Your task to perform on an android device: change notification settings in the gmail app Image 0: 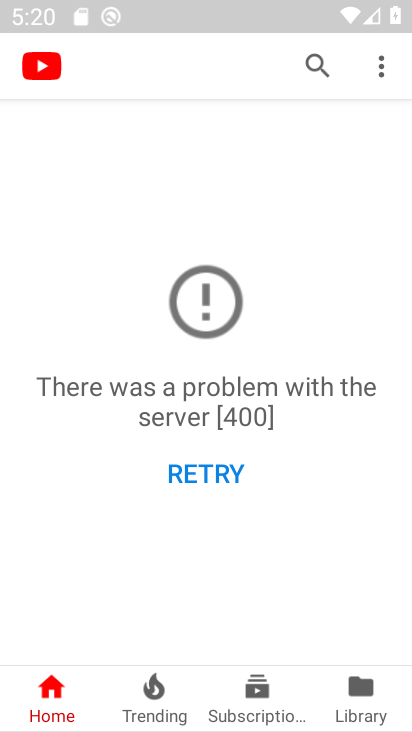
Step 0: press home button
Your task to perform on an android device: change notification settings in the gmail app Image 1: 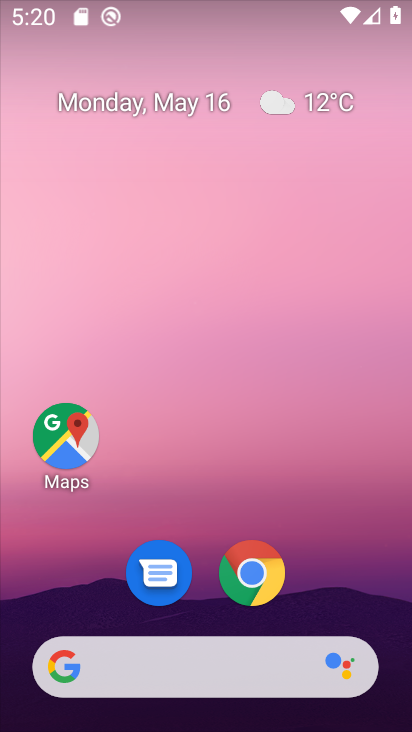
Step 1: drag from (208, 572) to (308, 28)
Your task to perform on an android device: change notification settings in the gmail app Image 2: 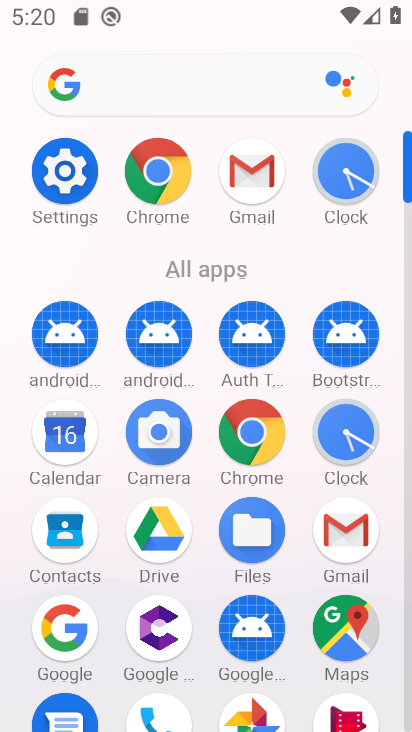
Step 2: click (249, 166)
Your task to perform on an android device: change notification settings in the gmail app Image 3: 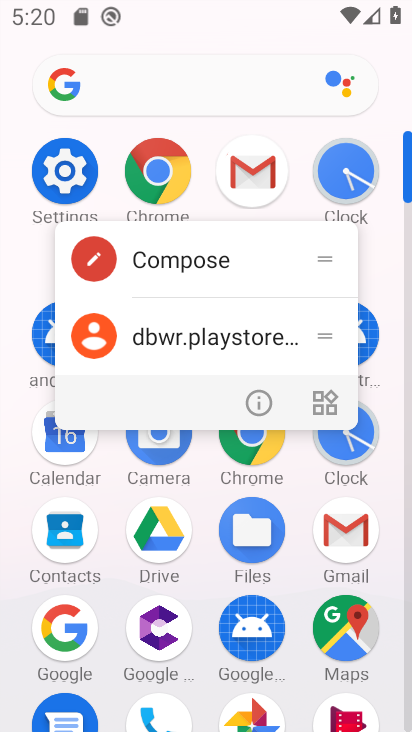
Step 3: click (255, 411)
Your task to perform on an android device: change notification settings in the gmail app Image 4: 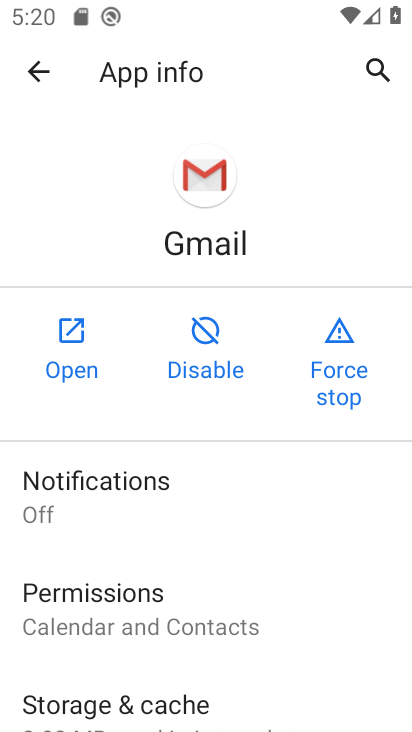
Step 4: click (132, 507)
Your task to perform on an android device: change notification settings in the gmail app Image 5: 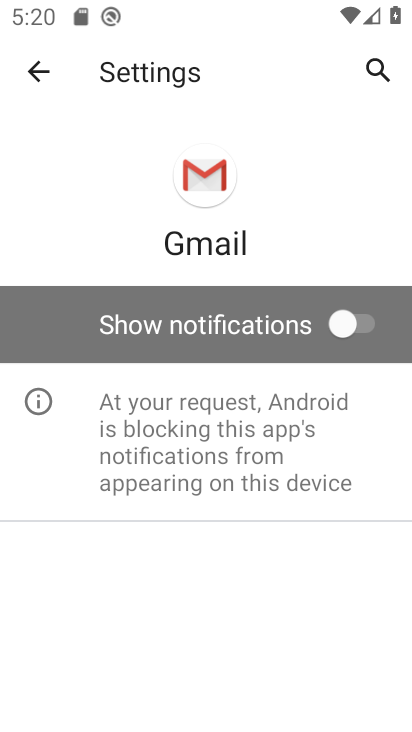
Step 5: click (342, 332)
Your task to perform on an android device: change notification settings in the gmail app Image 6: 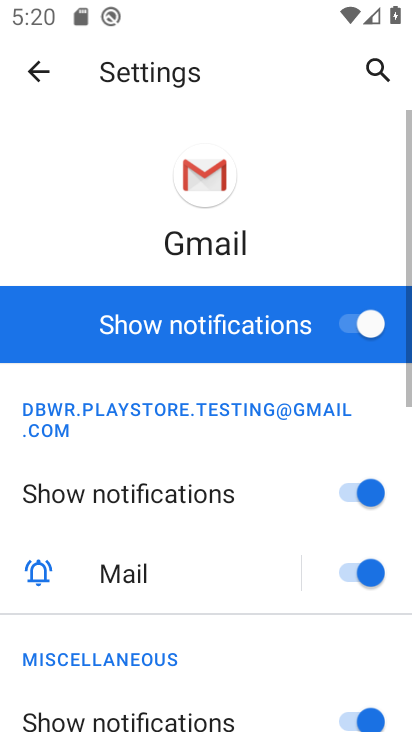
Step 6: drag from (220, 576) to (235, 293)
Your task to perform on an android device: change notification settings in the gmail app Image 7: 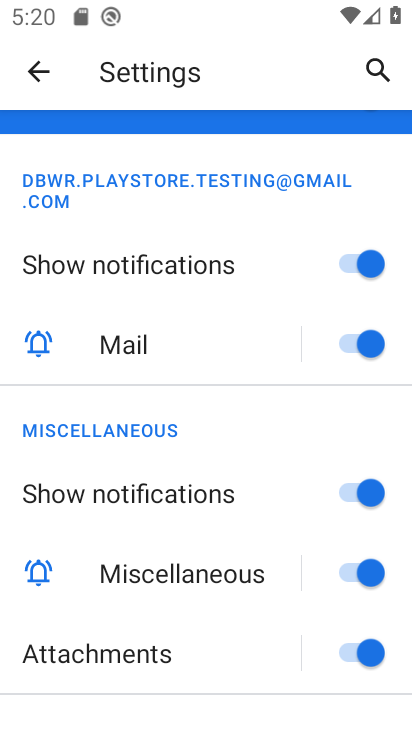
Step 7: click (377, 264)
Your task to perform on an android device: change notification settings in the gmail app Image 8: 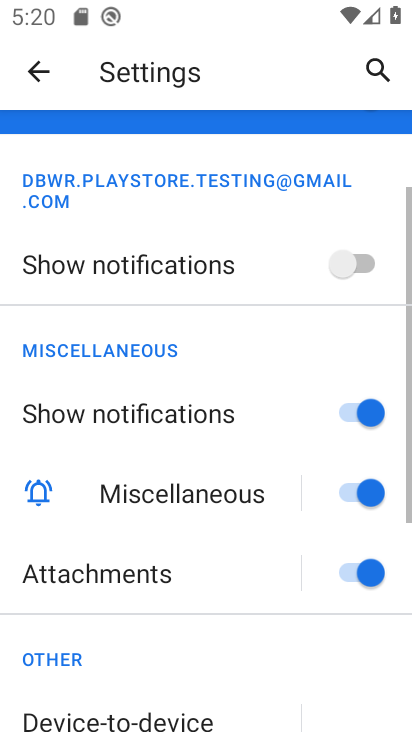
Step 8: task complete